Your task to perform on an android device: turn notification dots on Image 0: 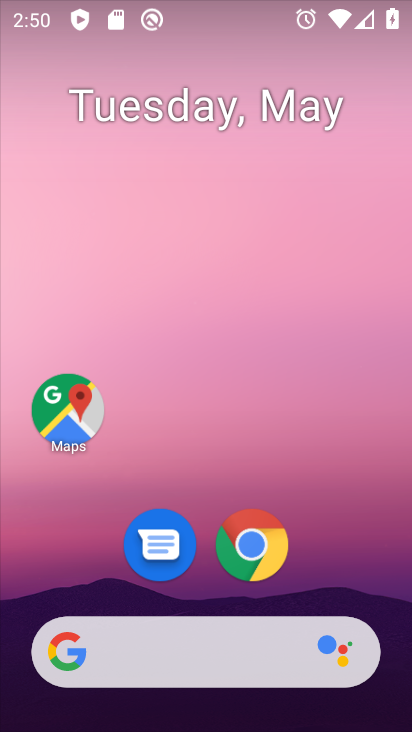
Step 0: click (184, 100)
Your task to perform on an android device: turn notification dots on Image 1: 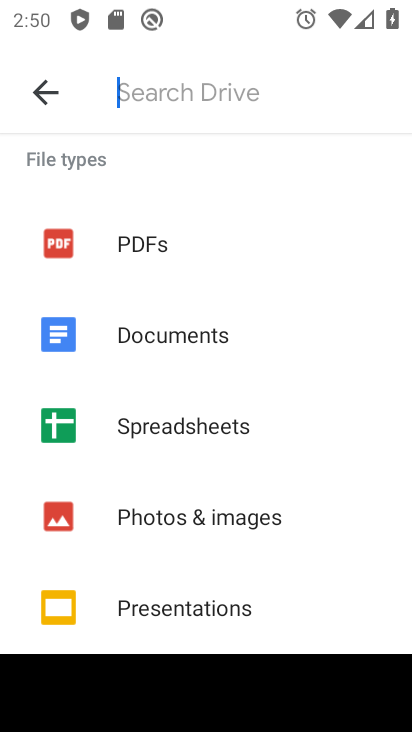
Step 1: press home button
Your task to perform on an android device: turn notification dots on Image 2: 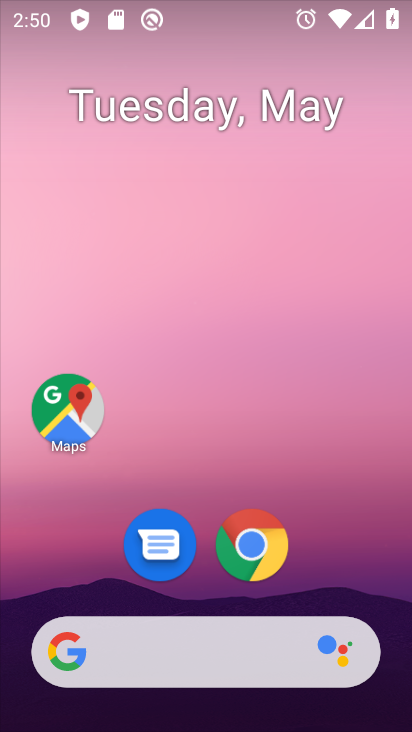
Step 2: drag from (207, 645) to (198, 396)
Your task to perform on an android device: turn notification dots on Image 3: 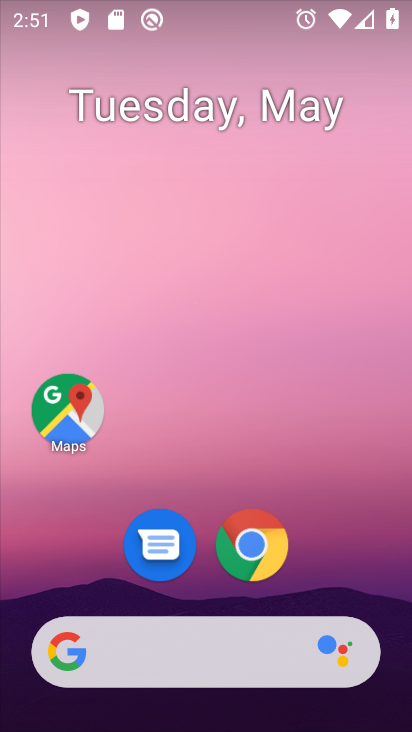
Step 3: drag from (169, 677) to (164, 180)
Your task to perform on an android device: turn notification dots on Image 4: 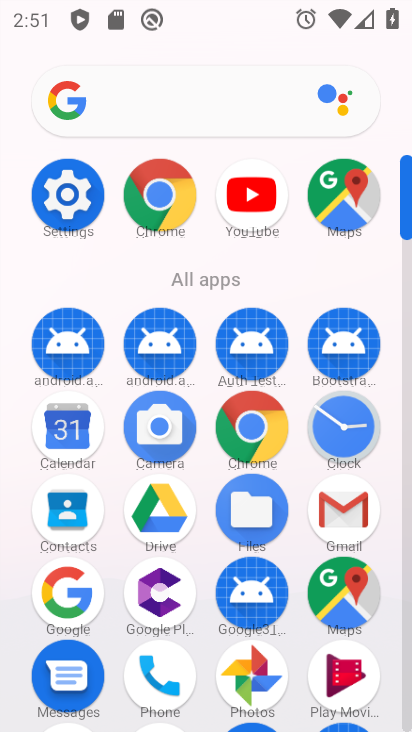
Step 4: click (78, 236)
Your task to perform on an android device: turn notification dots on Image 5: 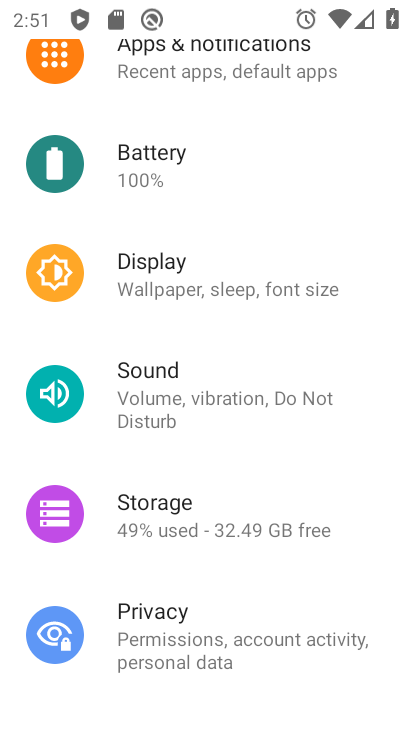
Step 5: click (197, 61)
Your task to perform on an android device: turn notification dots on Image 6: 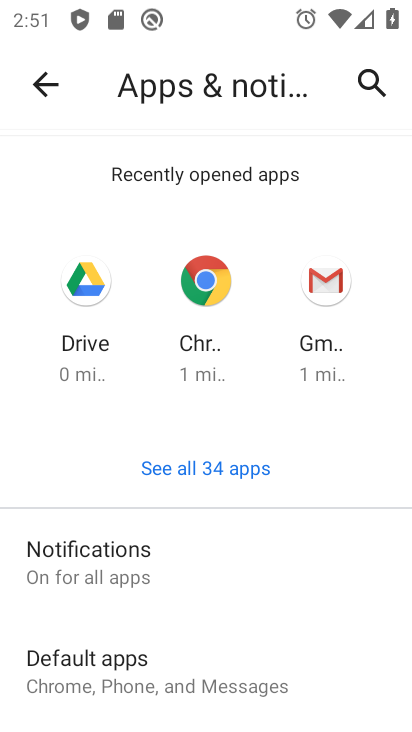
Step 6: click (132, 561)
Your task to perform on an android device: turn notification dots on Image 7: 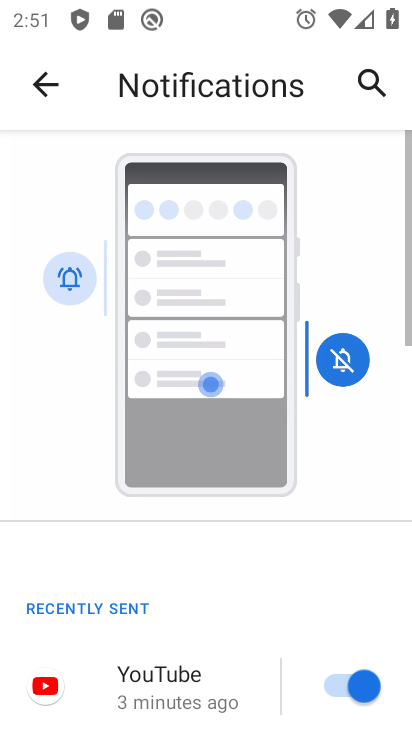
Step 7: drag from (183, 636) to (156, 197)
Your task to perform on an android device: turn notification dots on Image 8: 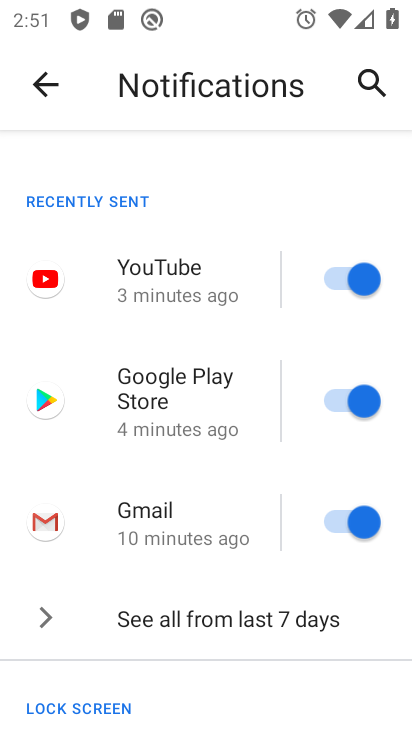
Step 8: drag from (155, 627) to (142, 43)
Your task to perform on an android device: turn notification dots on Image 9: 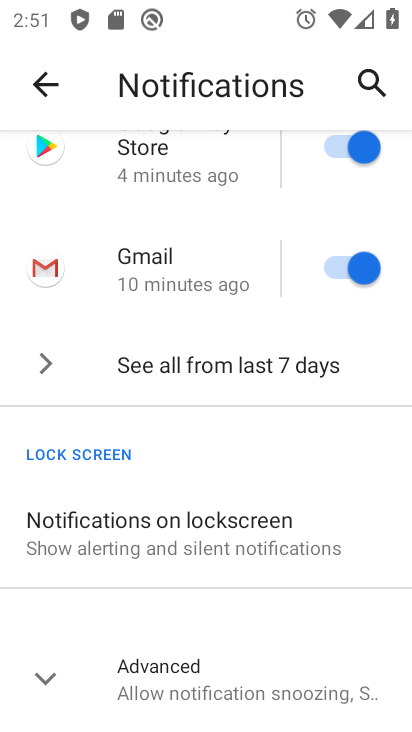
Step 9: click (152, 676)
Your task to perform on an android device: turn notification dots on Image 10: 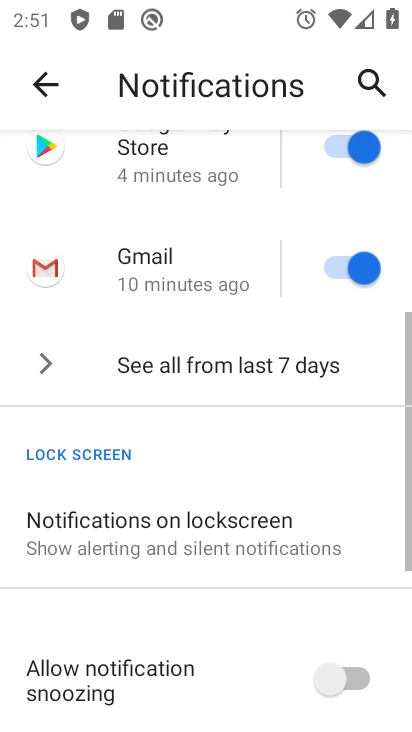
Step 10: drag from (224, 650) to (213, 220)
Your task to perform on an android device: turn notification dots on Image 11: 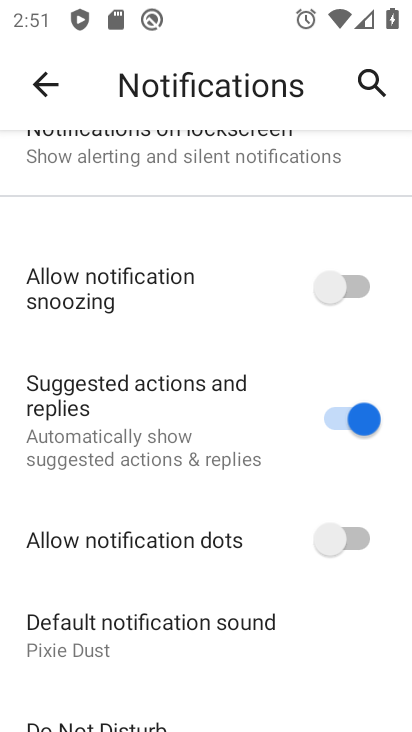
Step 11: click (332, 530)
Your task to perform on an android device: turn notification dots on Image 12: 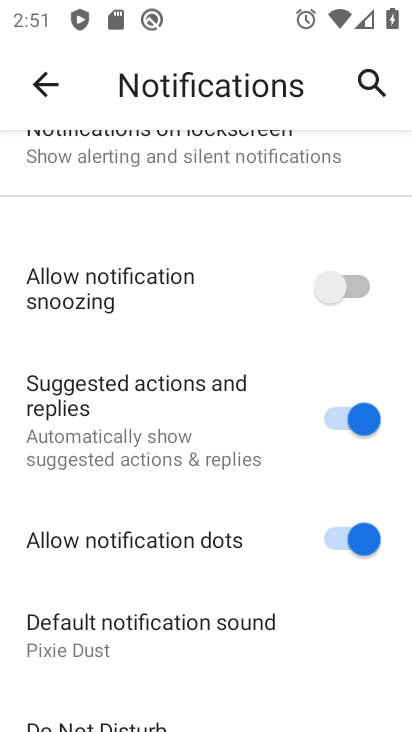
Step 12: task complete